Your task to perform on an android device: check android version Image 0: 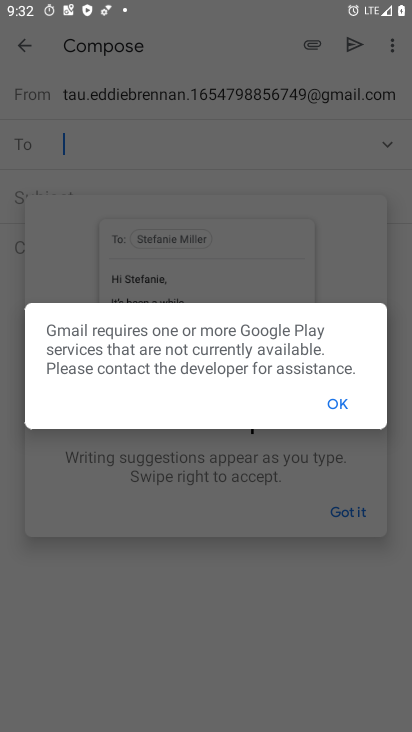
Step 0: press home button
Your task to perform on an android device: check android version Image 1: 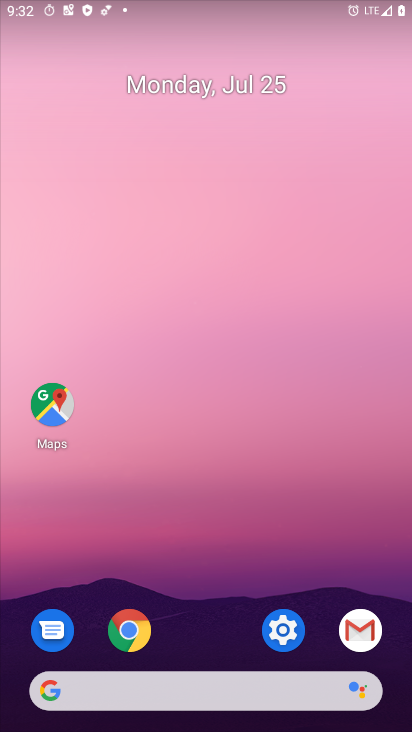
Step 1: click (278, 628)
Your task to perform on an android device: check android version Image 2: 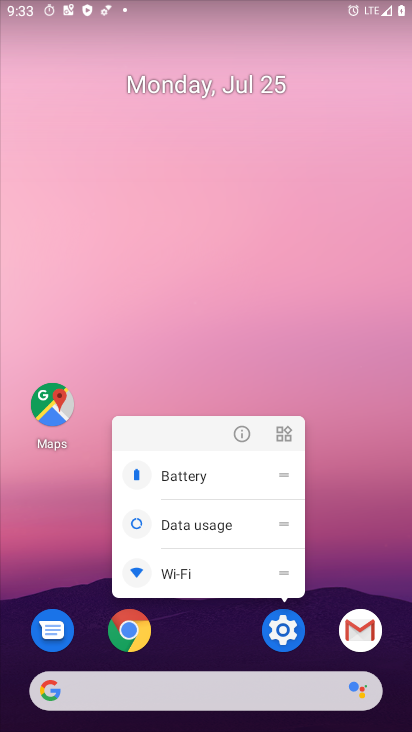
Step 2: click (286, 646)
Your task to perform on an android device: check android version Image 3: 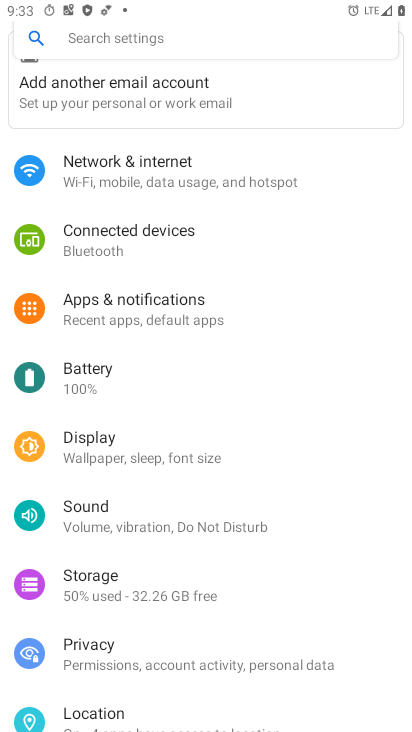
Step 3: click (123, 48)
Your task to perform on an android device: check android version Image 4: 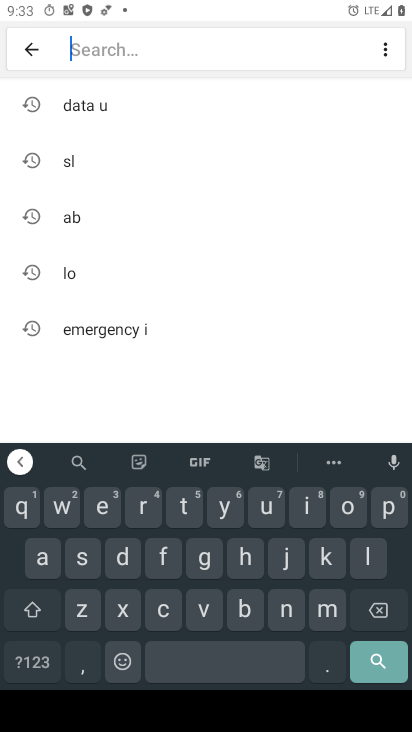
Step 4: click (39, 556)
Your task to perform on an android device: check android version Image 5: 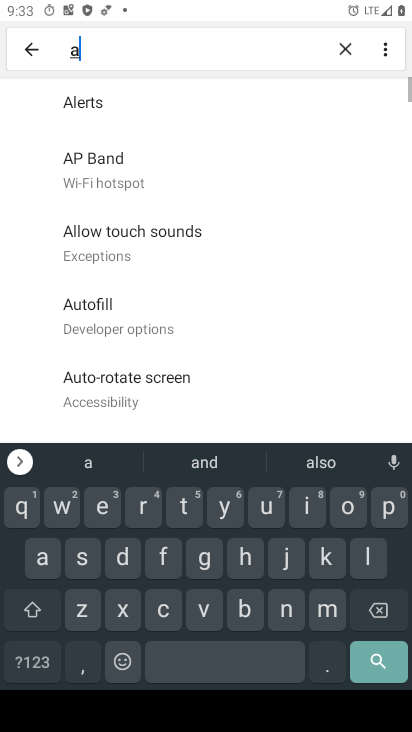
Step 5: click (285, 617)
Your task to perform on an android device: check android version Image 6: 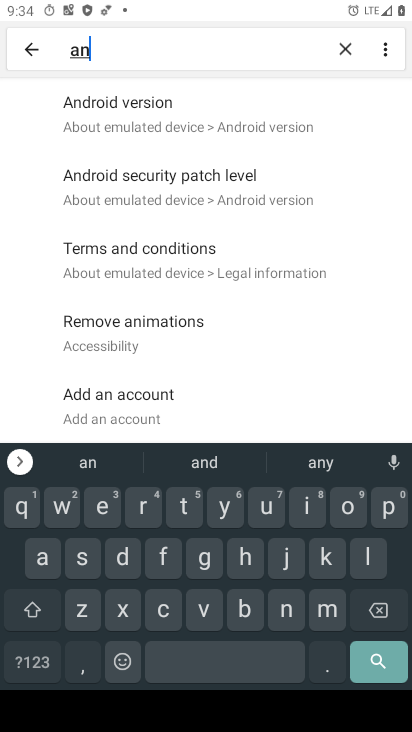
Step 6: click (161, 115)
Your task to perform on an android device: check android version Image 7: 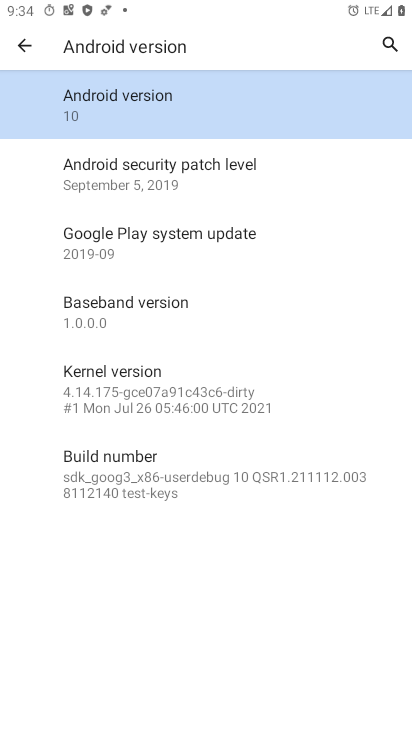
Step 7: click (158, 114)
Your task to perform on an android device: check android version Image 8: 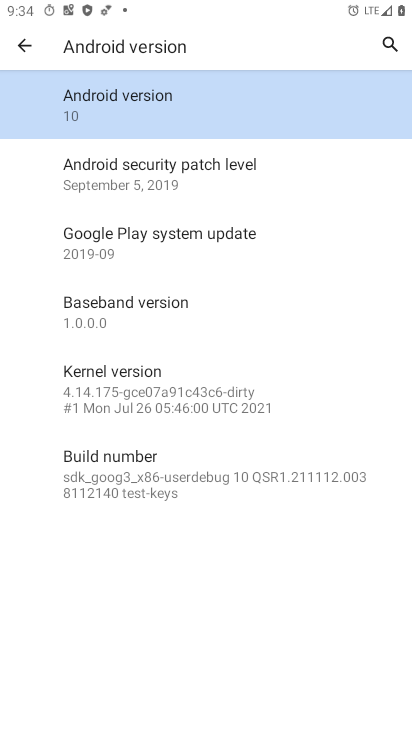
Step 8: task complete